Your task to perform on an android device: turn off picture-in-picture Image 0: 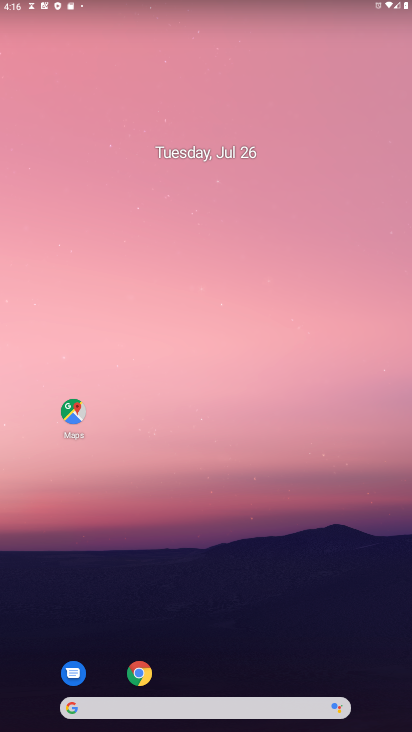
Step 0: click (137, 671)
Your task to perform on an android device: turn off picture-in-picture Image 1: 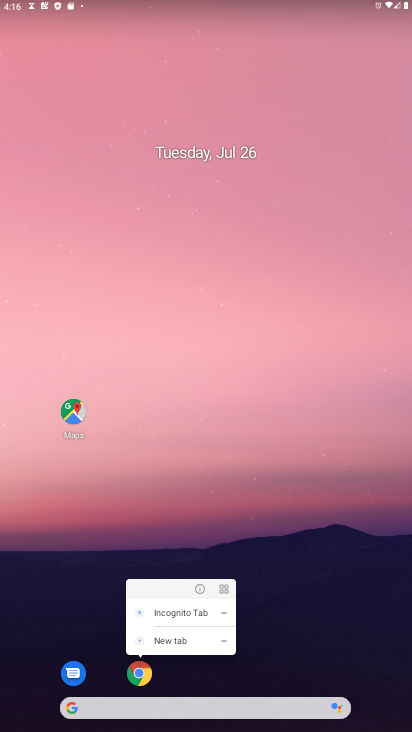
Step 1: click (201, 589)
Your task to perform on an android device: turn off picture-in-picture Image 2: 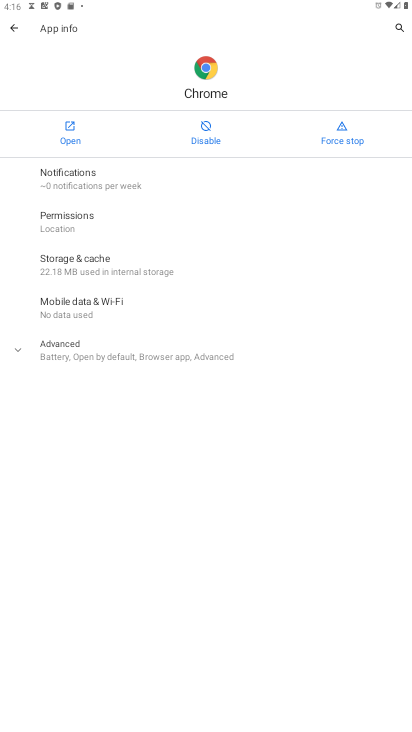
Step 2: click (120, 348)
Your task to perform on an android device: turn off picture-in-picture Image 3: 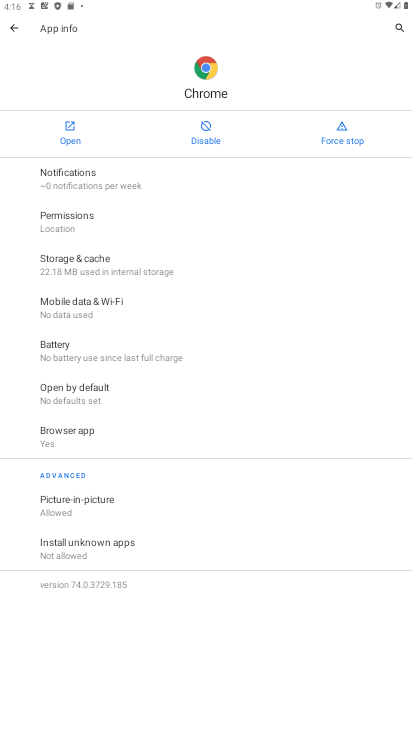
Step 3: click (85, 501)
Your task to perform on an android device: turn off picture-in-picture Image 4: 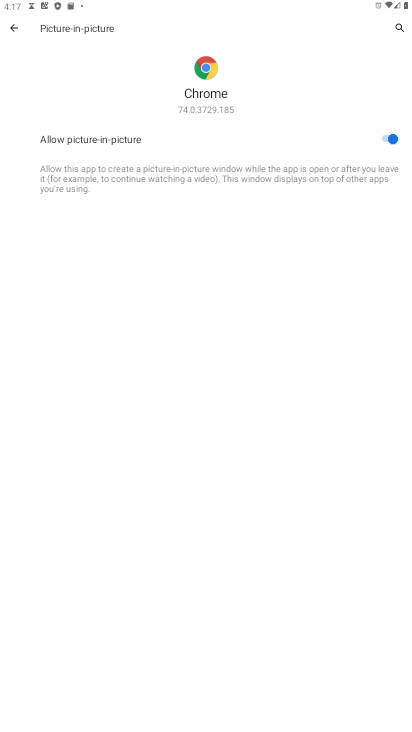
Step 4: click (391, 138)
Your task to perform on an android device: turn off picture-in-picture Image 5: 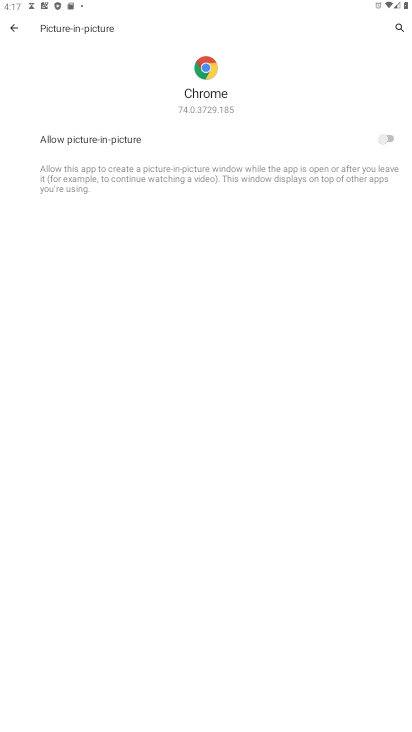
Step 5: task complete